Your task to perform on an android device: turn off smart reply in the gmail app Image 0: 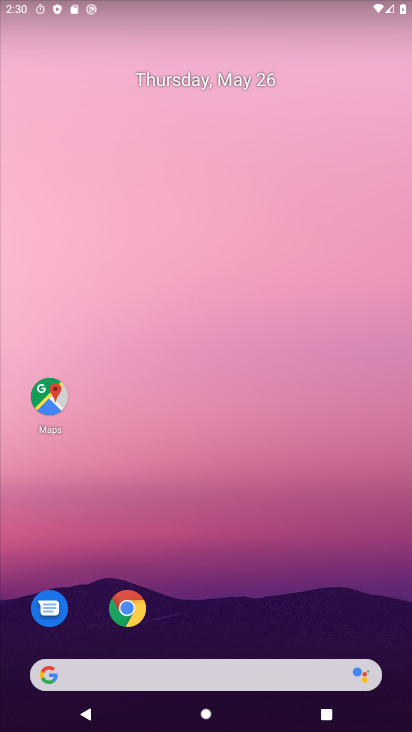
Step 0: drag from (270, 699) to (101, 36)
Your task to perform on an android device: turn off smart reply in the gmail app Image 1: 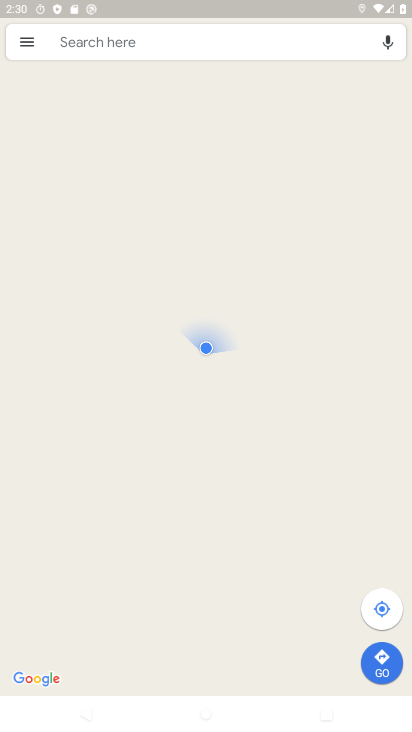
Step 1: press back button
Your task to perform on an android device: turn off smart reply in the gmail app Image 2: 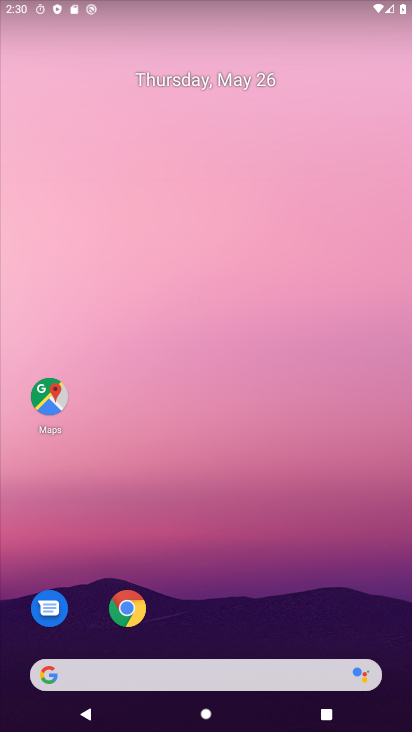
Step 2: drag from (266, 675) to (96, 143)
Your task to perform on an android device: turn off smart reply in the gmail app Image 3: 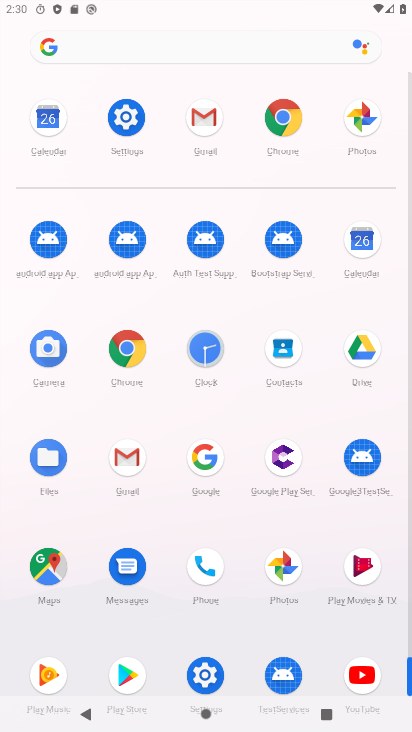
Step 3: click (124, 456)
Your task to perform on an android device: turn off smart reply in the gmail app Image 4: 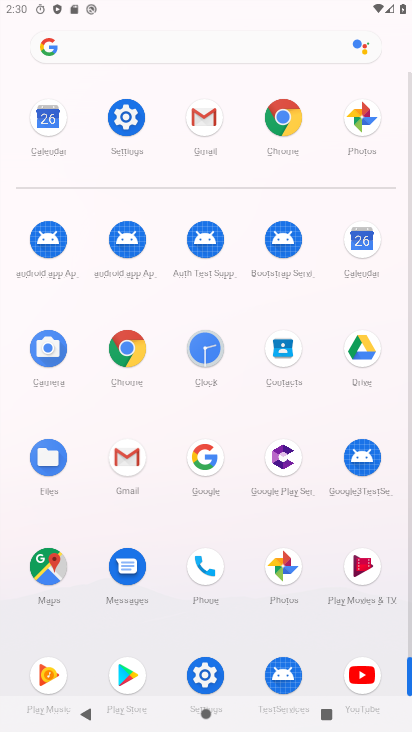
Step 4: click (124, 456)
Your task to perform on an android device: turn off smart reply in the gmail app Image 5: 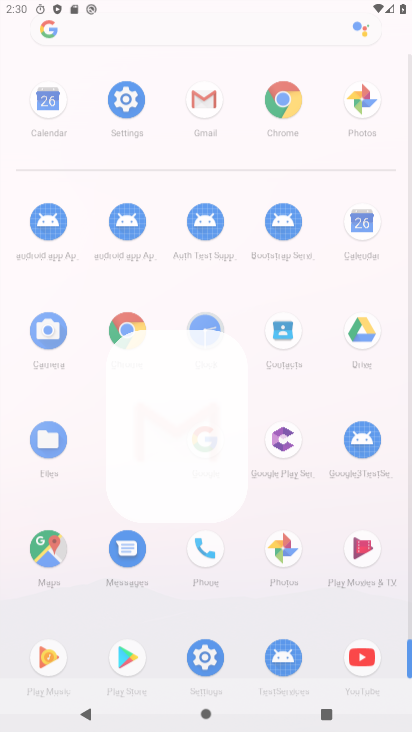
Step 5: click (124, 456)
Your task to perform on an android device: turn off smart reply in the gmail app Image 6: 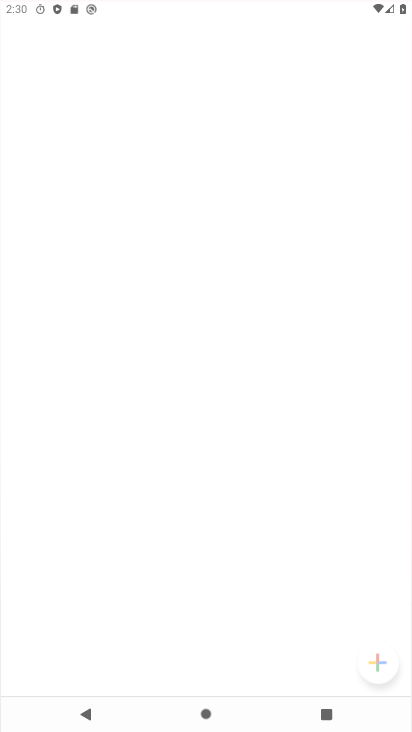
Step 6: click (124, 456)
Your task to perform on an android device: turn off smart reply in the gmail app Image 7: 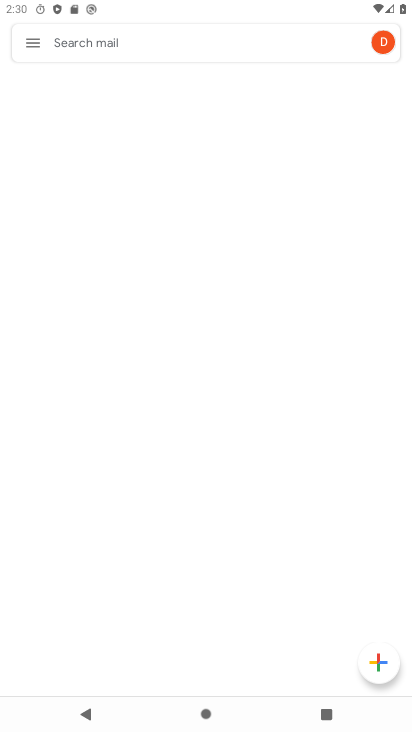
Step 7: click (125, 457)
Your task to perform on an android device: turn off smart reply in the gmail app Image 8: 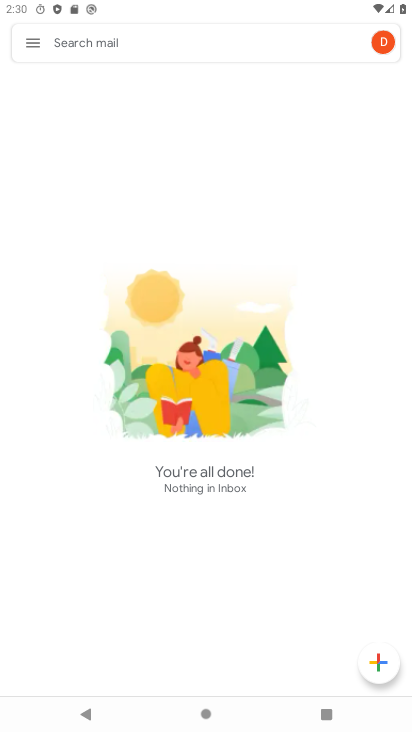
Step 8: click (30, 41)
Your task to perform on an android device: turn off smart reply in the gmail app Image 9: 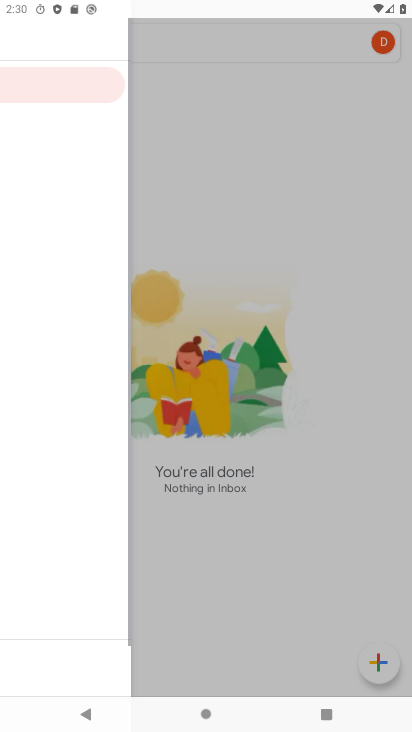
Step 9: click (30, 40)
Your task to perform on an android device: turn off smart reply in the gmail app Image 10: 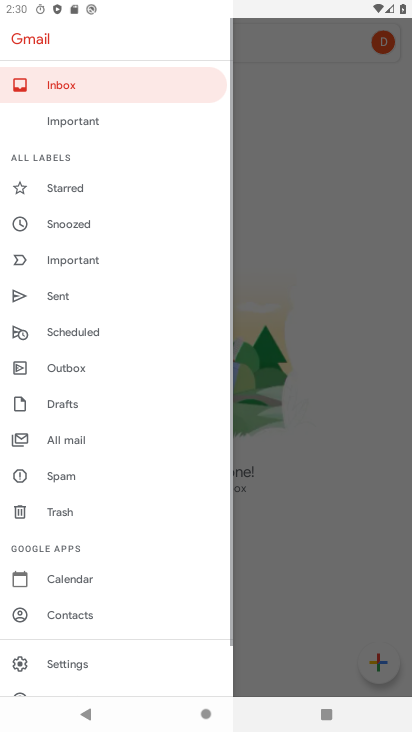
Step 10: click (30, 40)
Your task to perform on an android device: turn off smart reply in the gmail app Image 11: 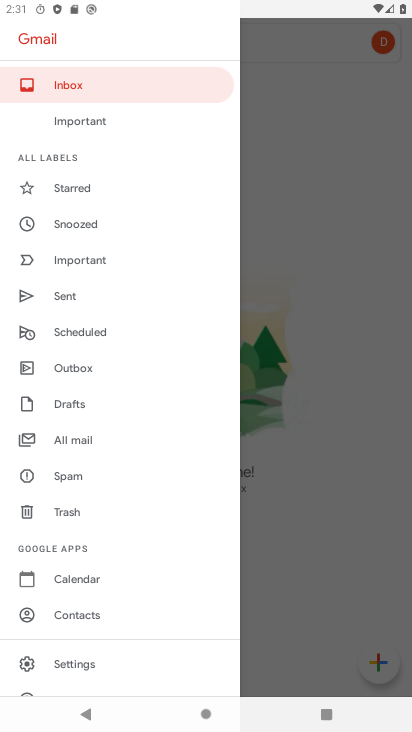
Step 11: click (76, 663)
Your task to perform on an android device: turn off smart reply in the gmail app Image 12: 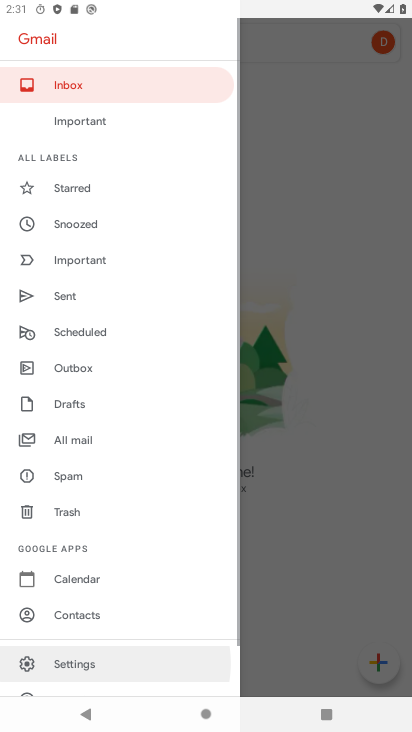
Step 12: click (80, 660)
Your task to perform on an android device: turn off smart reply in the gmail app Image 13: 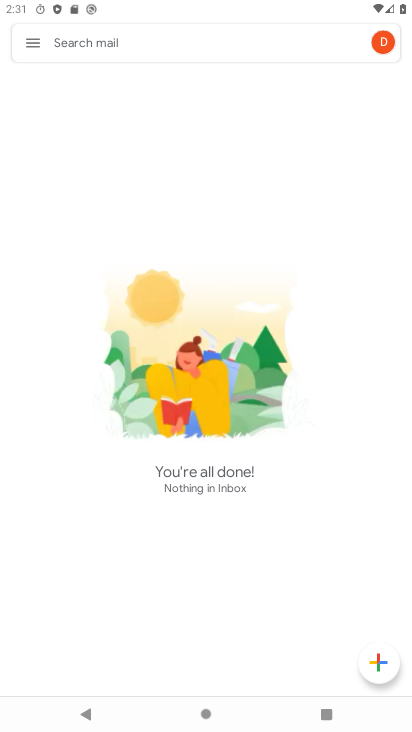
Step 13: click (85, 660)
Your task to perform on an android device: turn off smart reply in the gmail app Image 14: 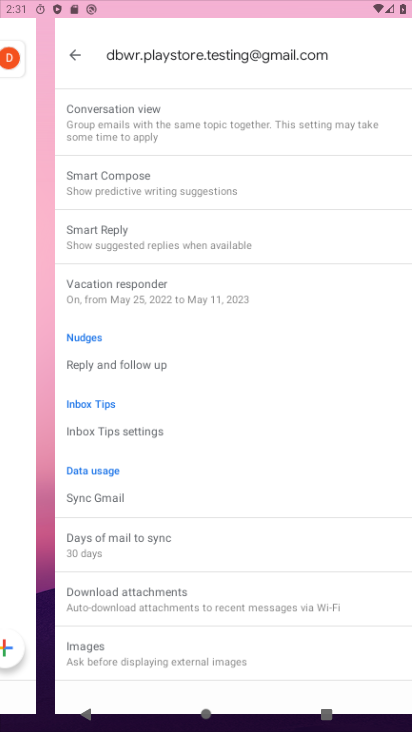
Step 14: click (85, 660)
Your task to perform on an android device: turn off smart reply in the gmail app Image 15: 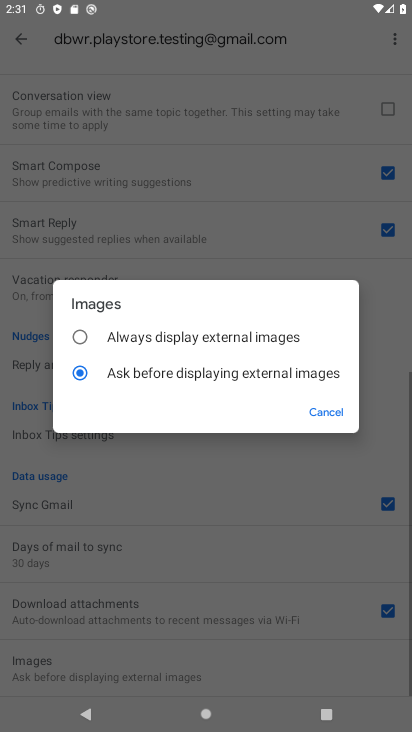
Step 15: click (330, 406)
Your task to perform on an android device: turn off smart reply in the gmail app Image 16: 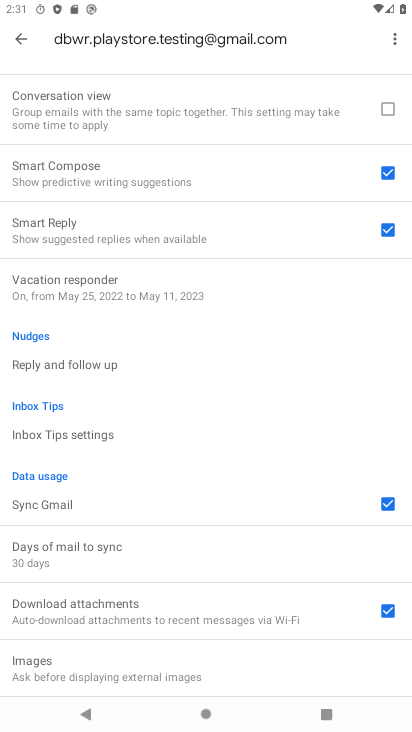
Step 16: click (379, 232)
Your task to perform on an android device: turn off smart reply in the gmail app Image 17: 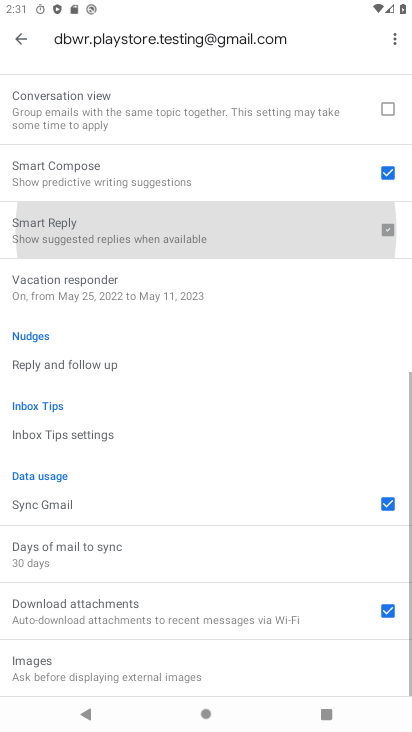
Step 17: click (379, 232)
Your task to perform on an android device: turn off smart reply in the gmail app Image 18: 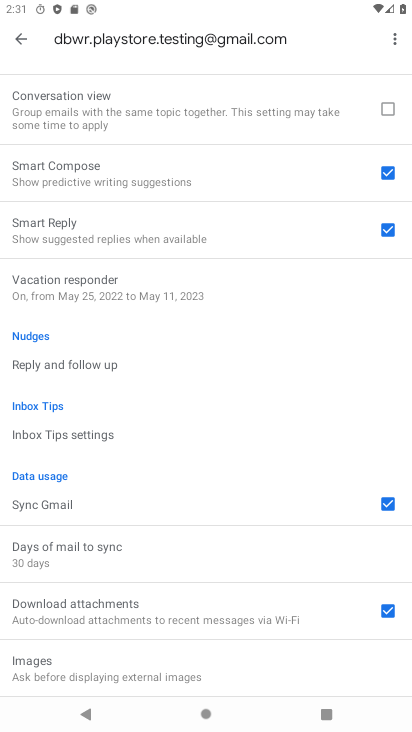
Step 18: click (387, 232)
Your task to perform on an android device: turn off smart reply in the gmail app Image 19: 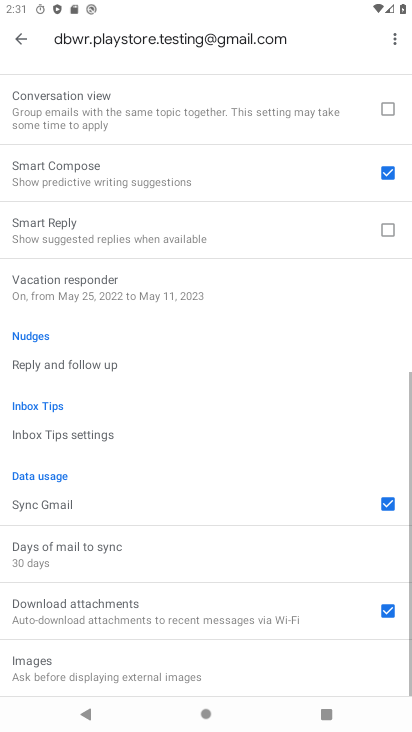
Step 19: click (387, 232)
Your task to perform on an android device: turn off smart reply in the gmail app Image 20: 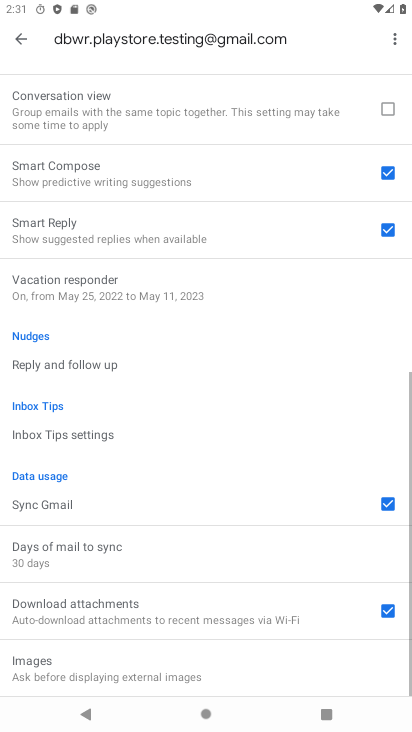
Step 20: click (387, 232)
Your task to perform on an android device: turn off smart reply in the gmail app Image 21: 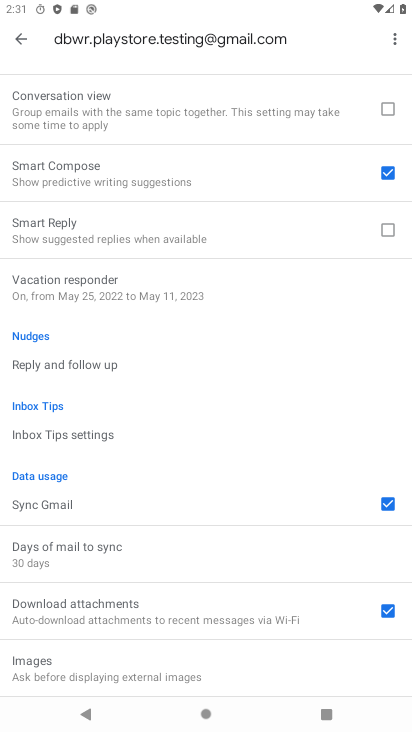
Step 21: task complete